Your task to perform on an android device: uninstall "Adobe Express: Graphic Design" Image 0: 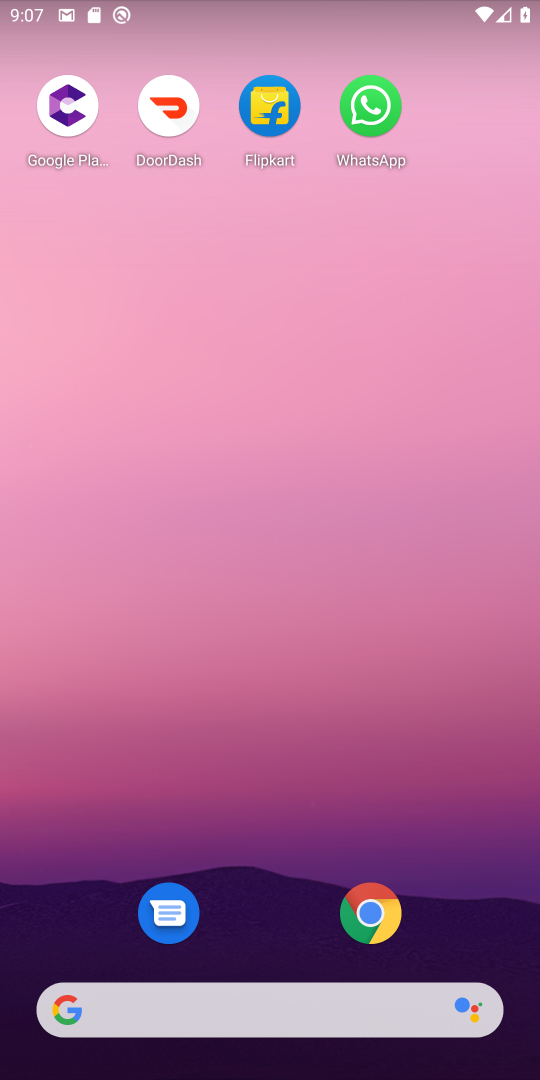
Step 0: drag from (245, 983) to (285, 82)
Your task to perform on an android device: uninstall "Adobe Express: Graphic Design" Image 1: 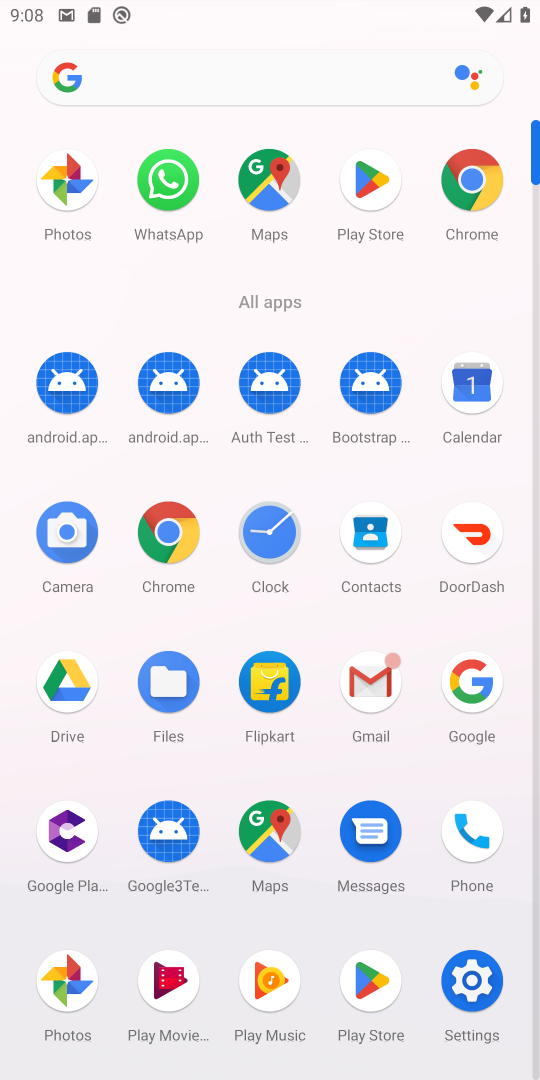
Step 1: click (364, 977)
Your task to perform on an android device: uninstall "Adobe Express: Graphic Design" Image 2: 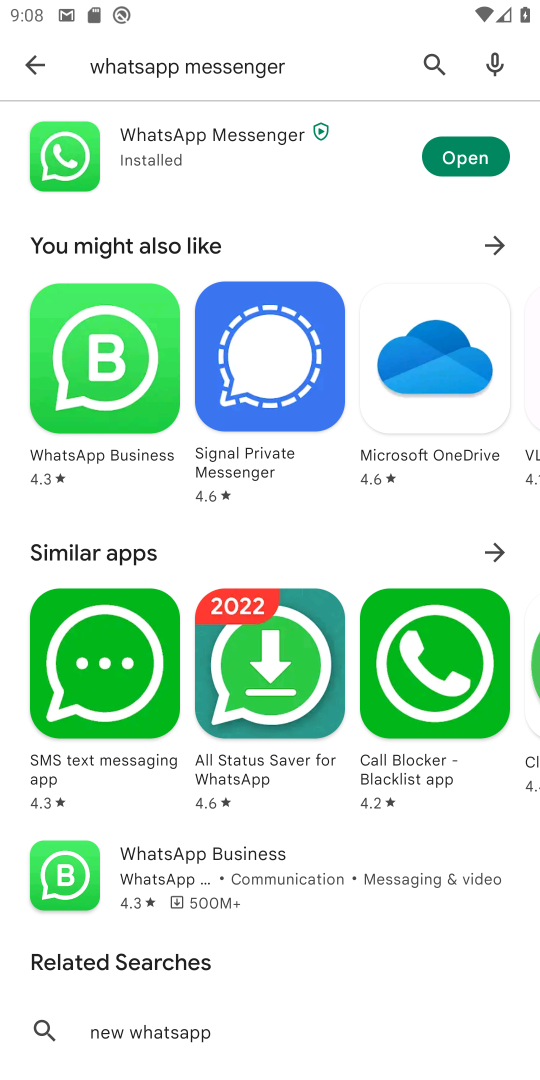
Step 2: click (432, 55)
Your task to perform on an android device: uninstall "Adobe Express: Graphic Design" Image 3: 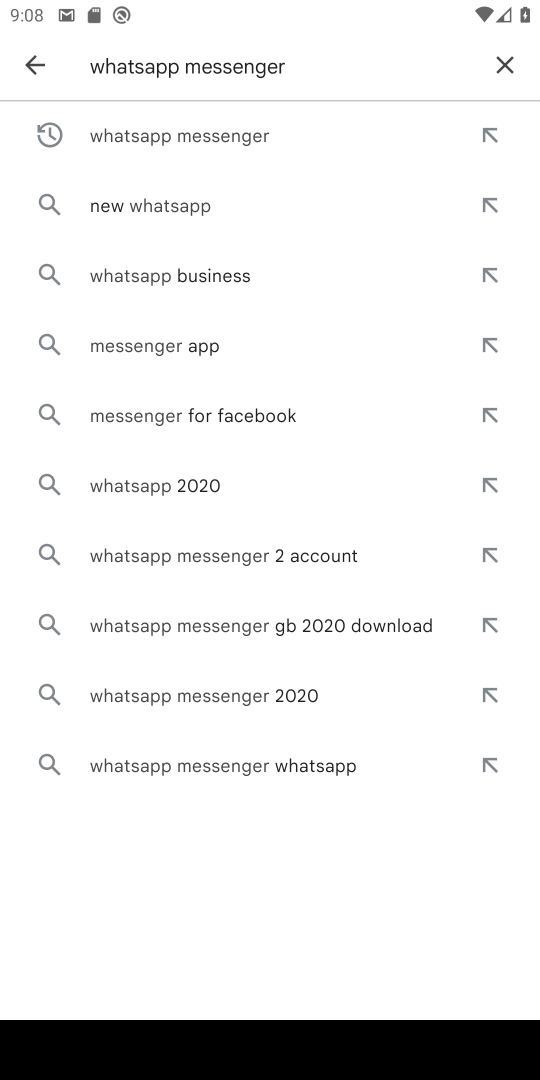
Step 3: click (517, 66)
Your task to perform on an android device: uninstall "Adobe Express: Graphic Design" Image 4: 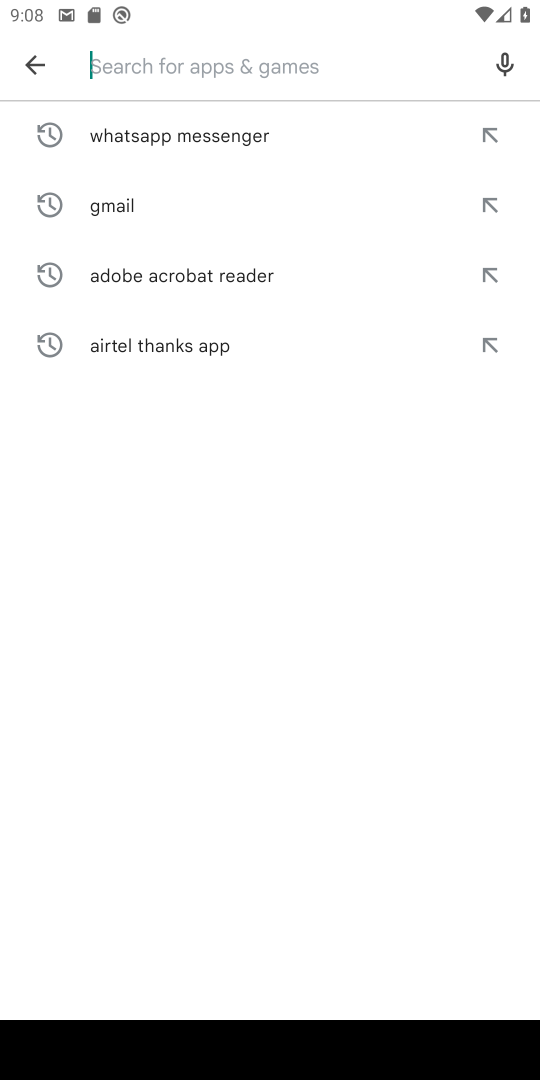
Step 4: type "Adobe Express: Graphic Design"
Your task to perform on an android device: uninstall "Adobe Express: Graphic Design" Image 5: 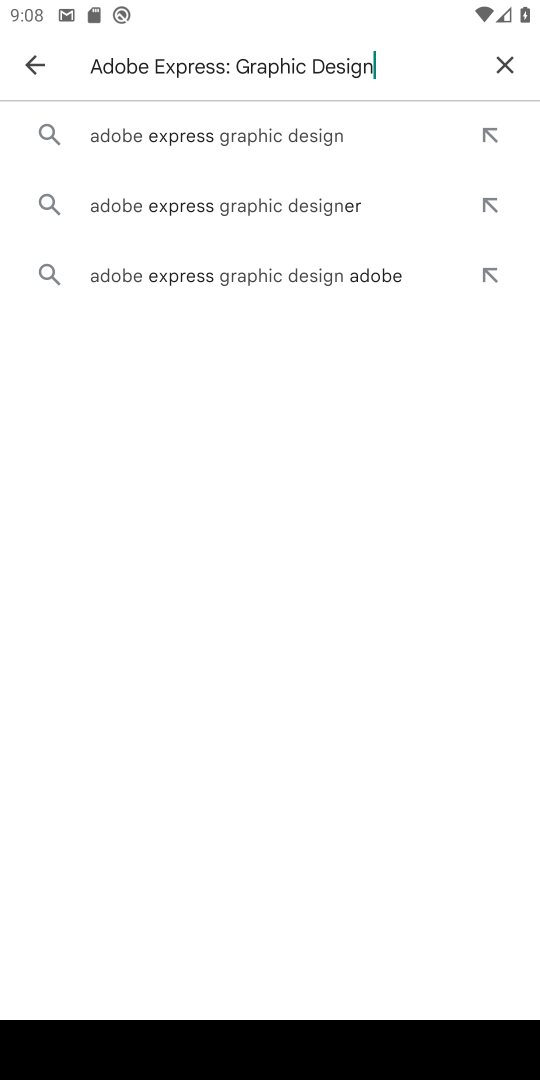
Step 5: click (288, 139)
Your task to perform on an android device: uninstall "Adobe Express: Graphic Design" Image 6: 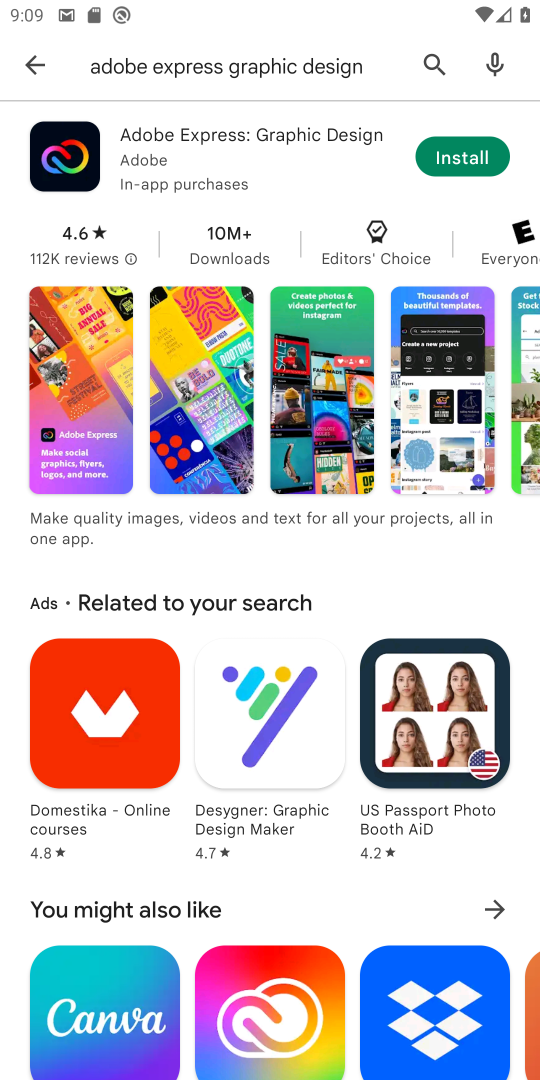
Step 6: task complete